Your task to perform on an android device: Search for vegetarian restaurants on Maps Image 0: 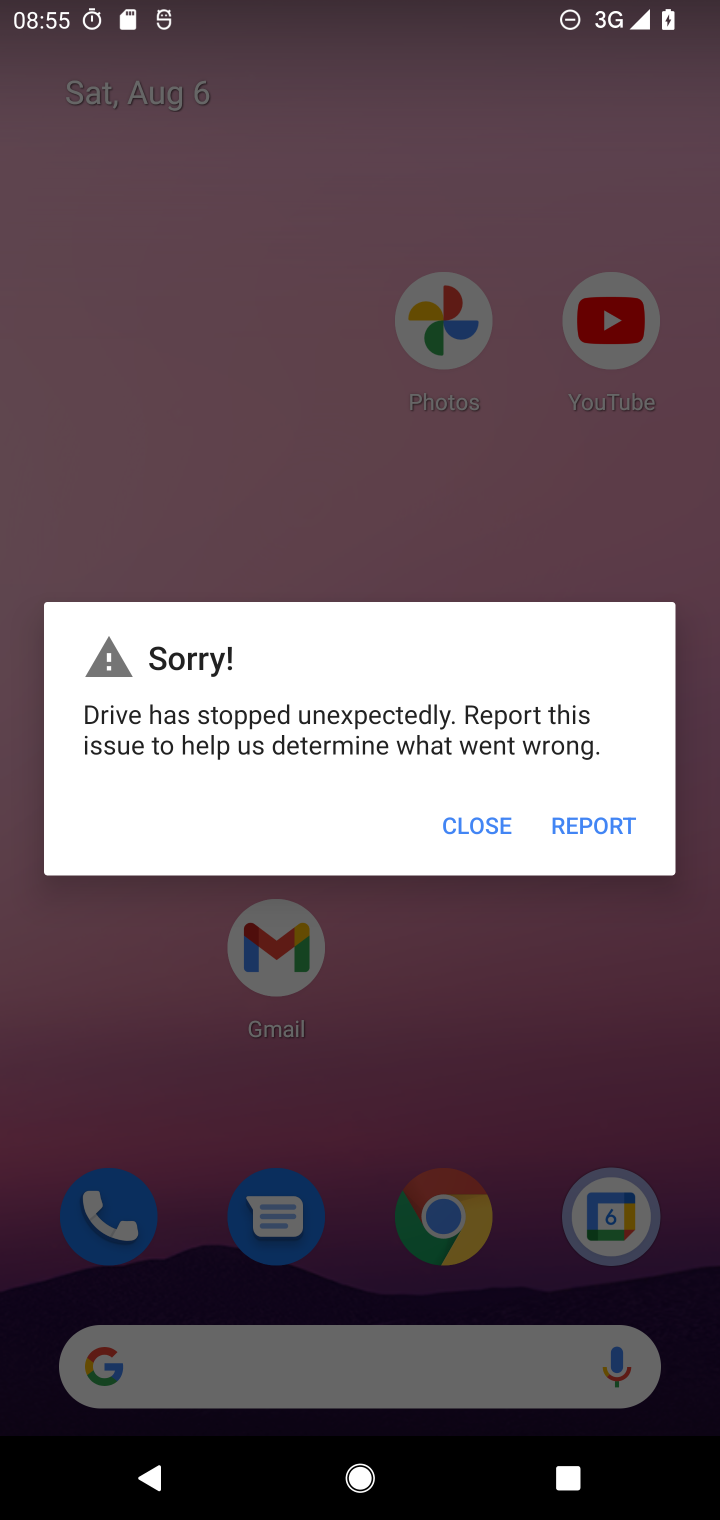
Step 0: press home button
Your task to perform on an android device: Search for vegetarian restaurants on Maps Image 1: 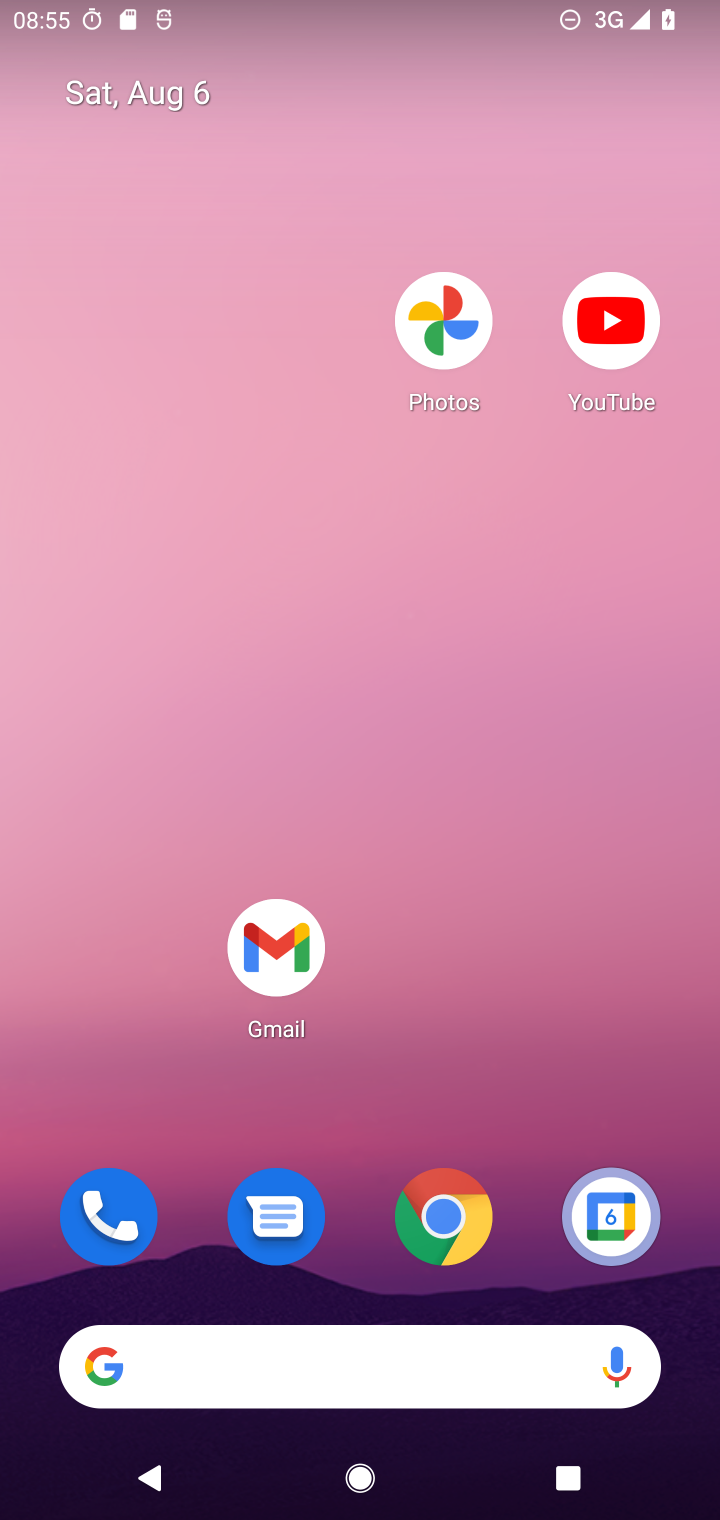
Step 1: drag from (526, 1100) to (541, 13)
Your task to perform on an android device: Search for vegetarian restaurants on Maps Image 2: 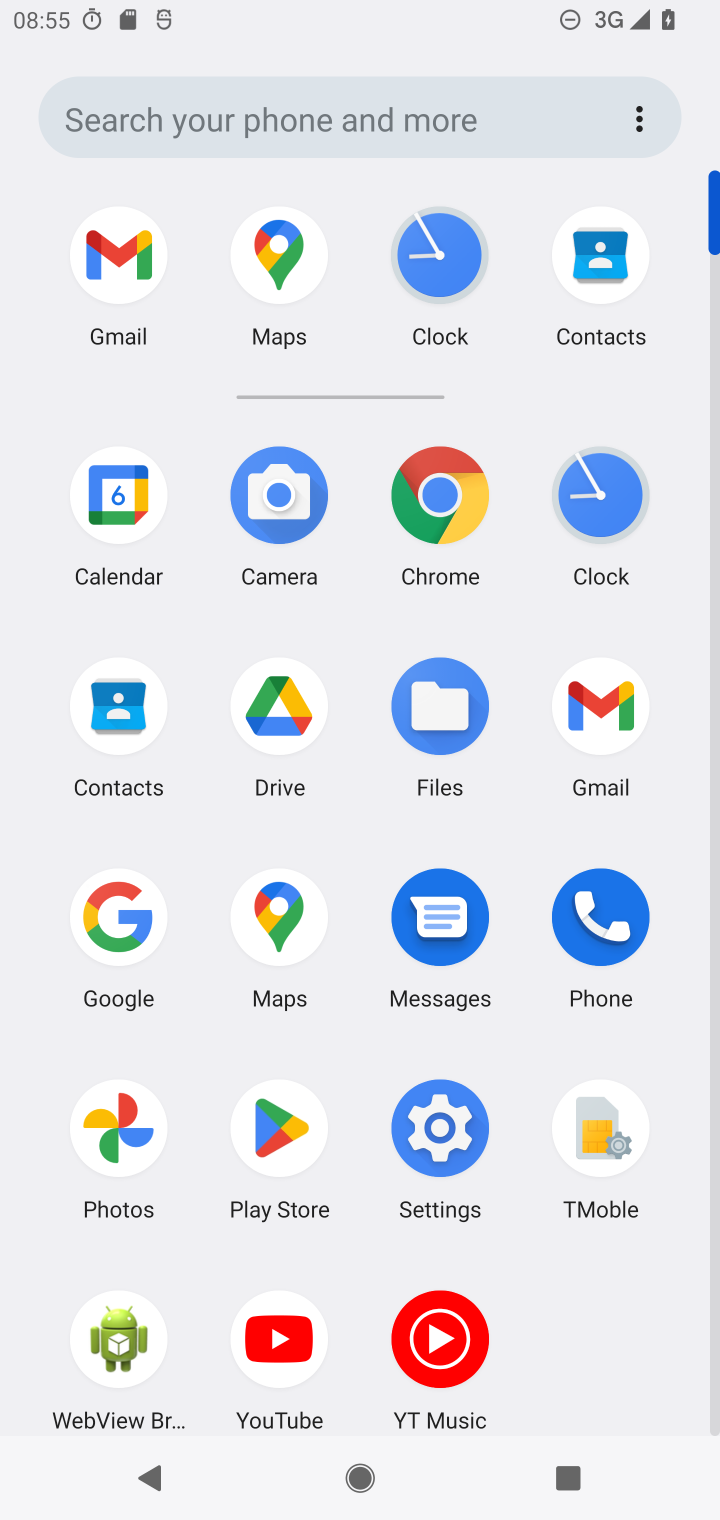
Step 2: click (298, 899)
Your task to perform on an android device: Search for vegetarian restaurants on Maps Image 3: 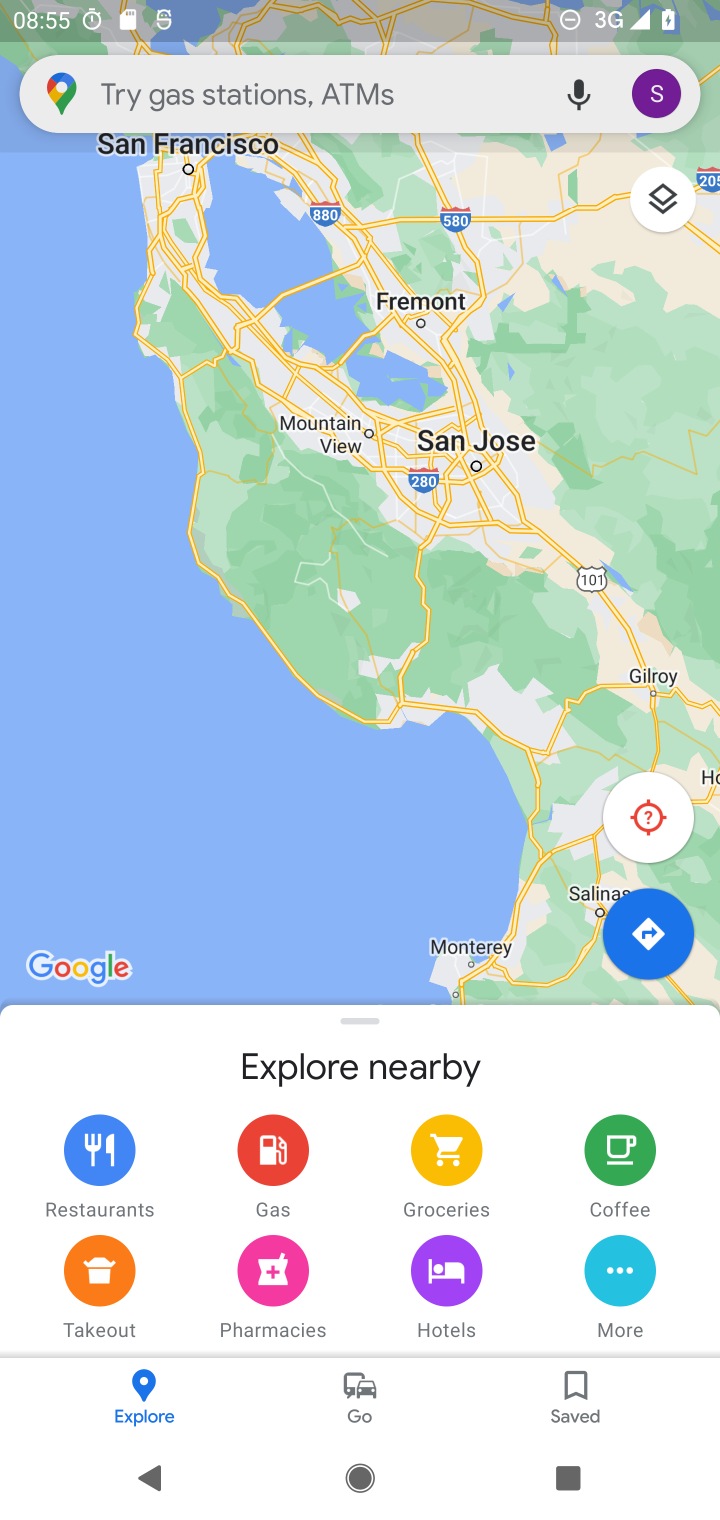
Step 3: click (316, 98)
Your task to perform on an android device: Search for vegetarian restaurants on Maps Image 4: 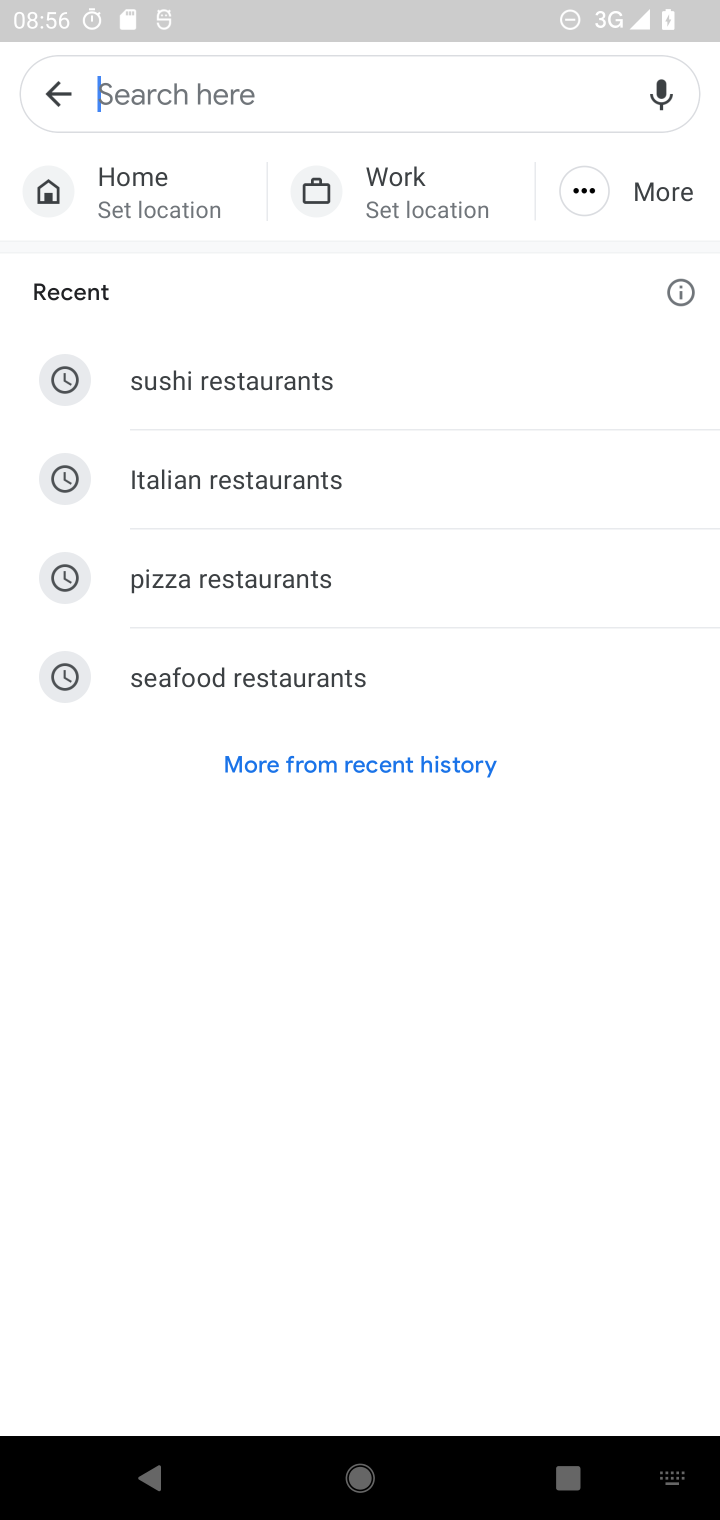
Step 4: type "vegetarian restaurants"
Your task to perform on an android device: Search for vegetarian restaurants on Maps Image 5: 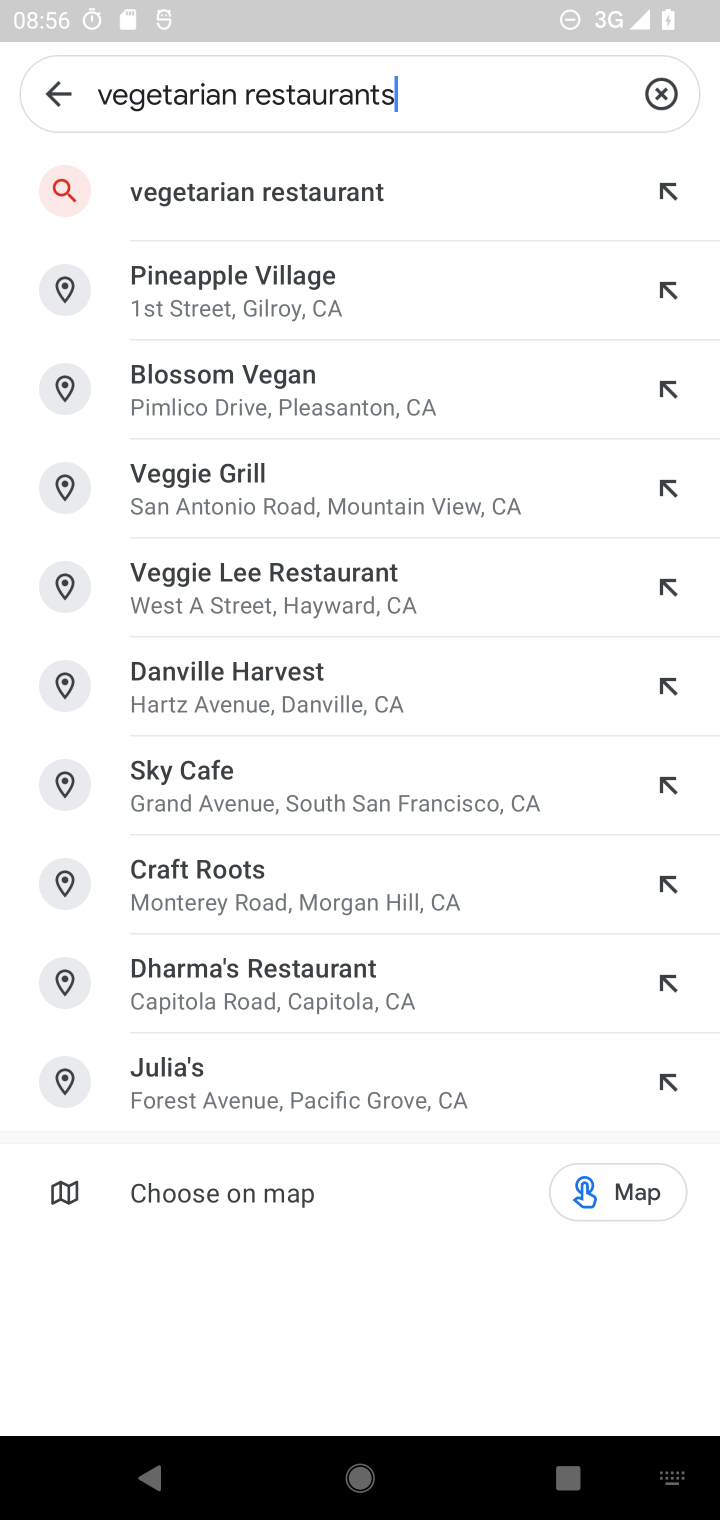
Step 5: press enter
Your task to perform on an android device: Search for vegetarian restaurants on Maps Image 6: 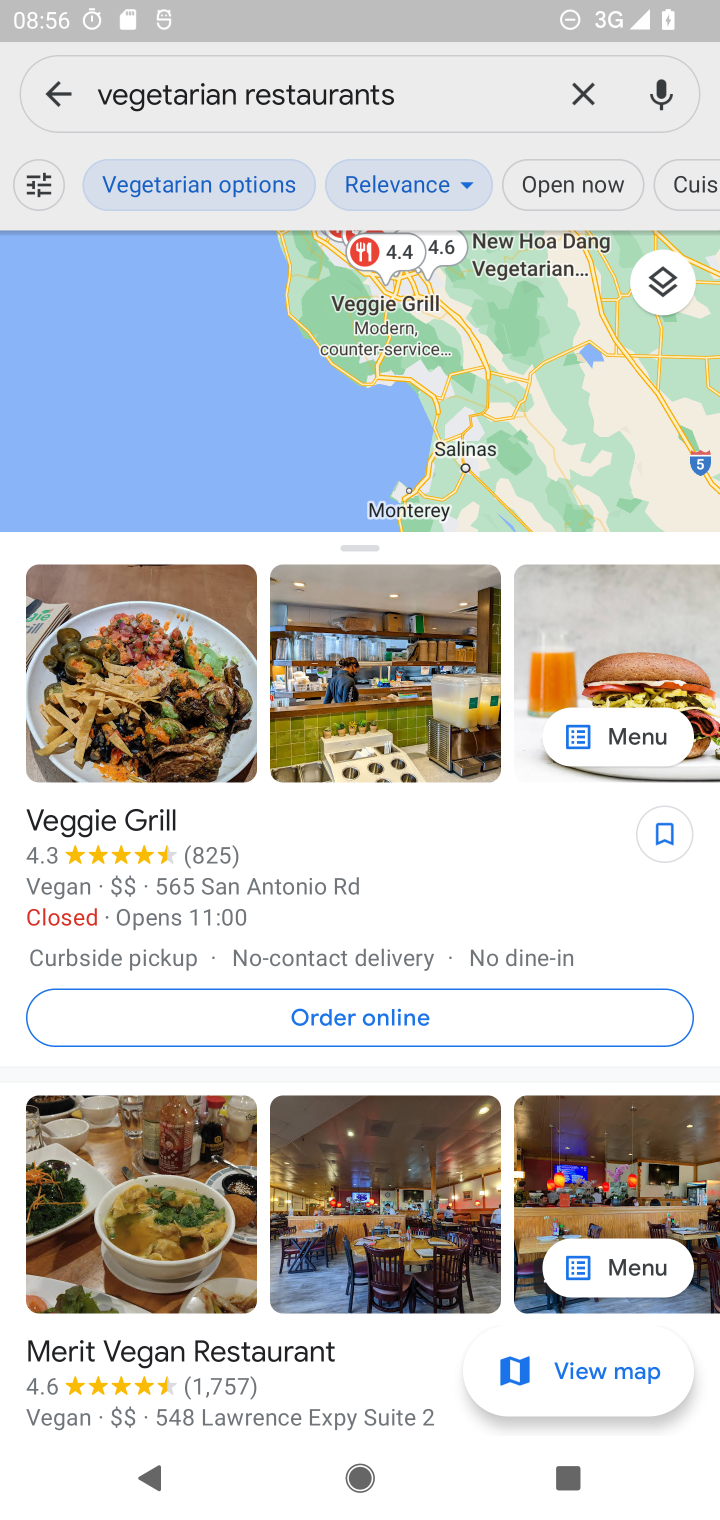
Step 6: task complete